Your task to perform on an android device: open app "VLC for Android" Image 0: 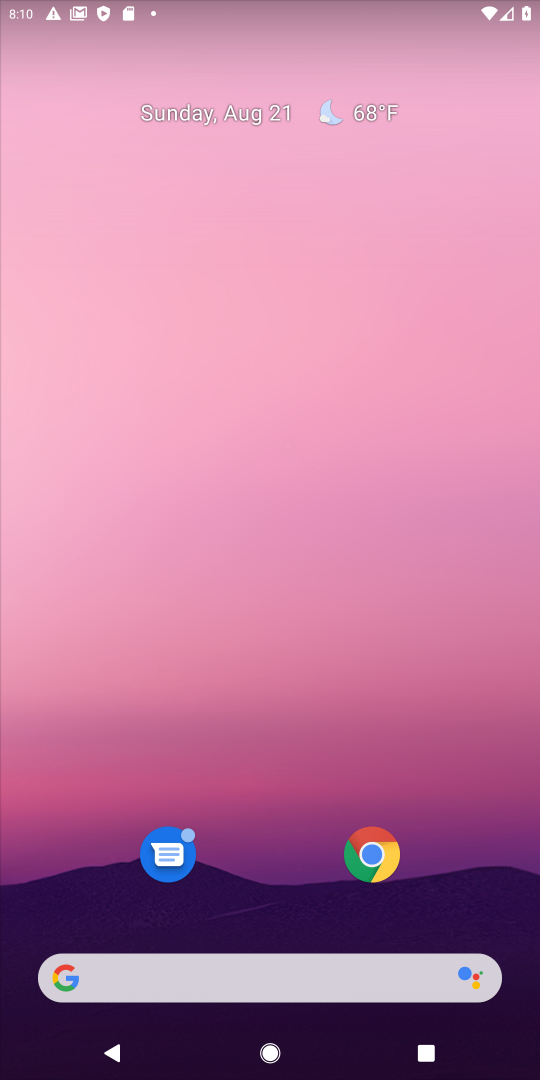
Step 0: drag from (248, 935) to (281, 107)
Your task to perform on an android device: open app "VLC for Android" Image 1: 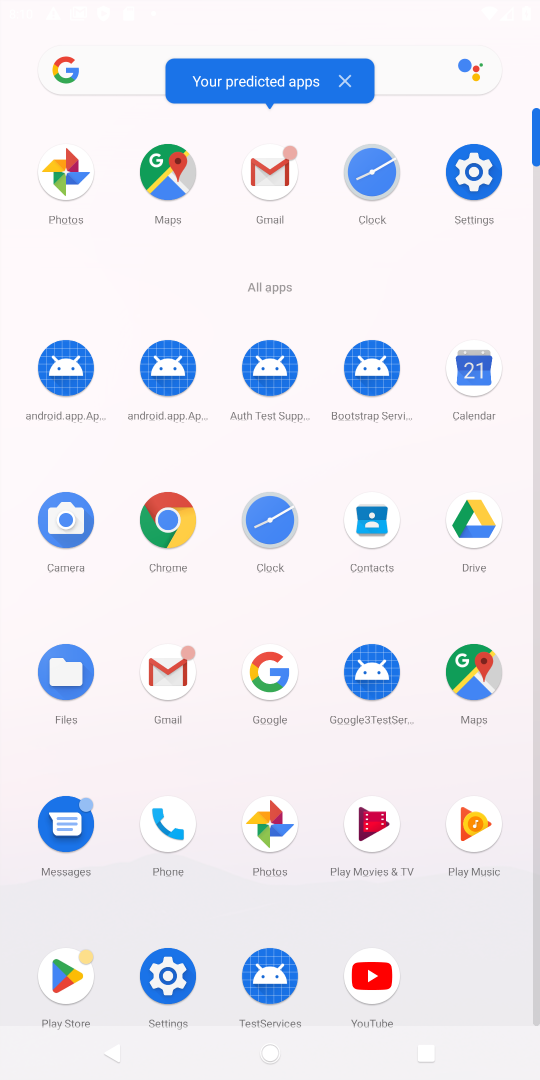
Step 1: click (73, 964)
Your task to perform on an android device: open app "VLC for Android" Image 2: 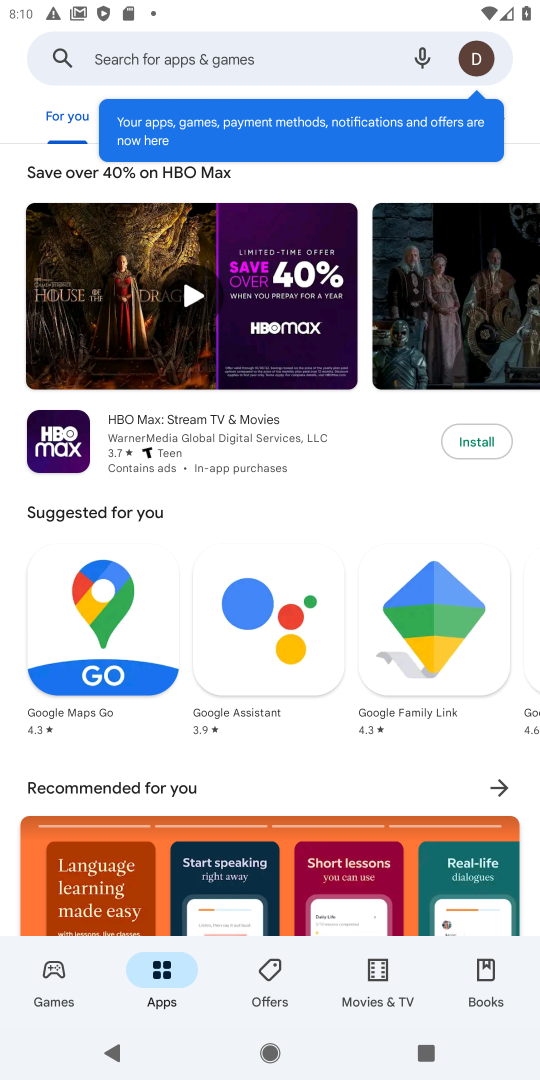
Step 2: click (254, 44)
Your task to perform on an android device: open app "VLC for Android" Image 3: 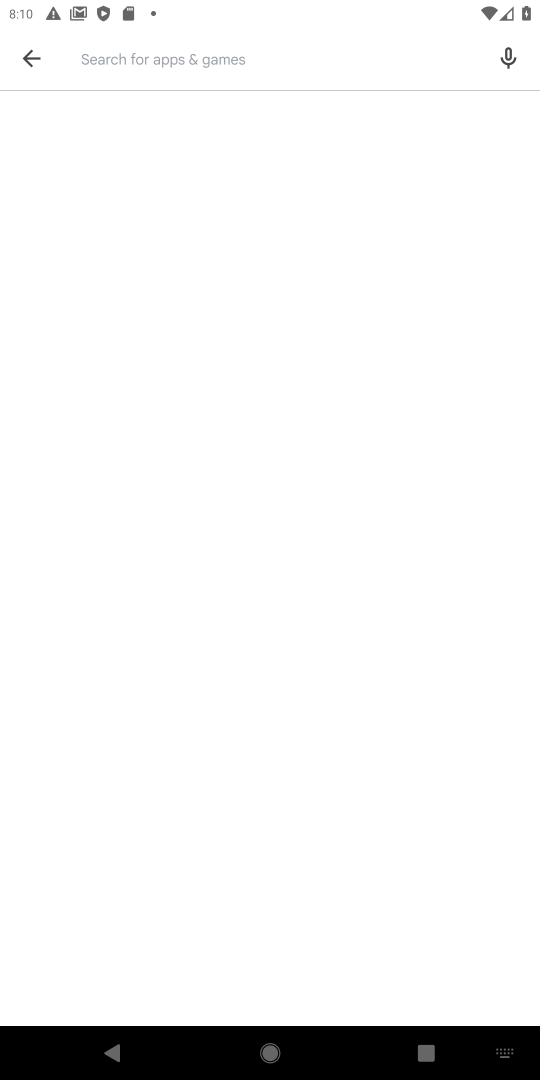
Step 3: type "vlc"
Your task to perform on an android device: open app "VLC for Android" Image 4: 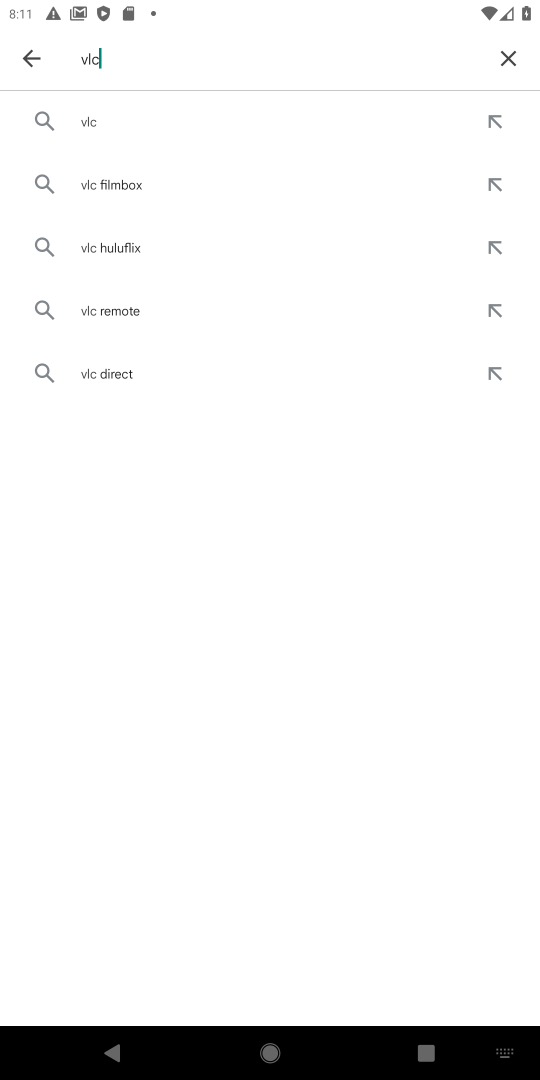
Step 4: click (112, 103)
Your task to perform on an android device: open app "VLC for Android" Image 5: 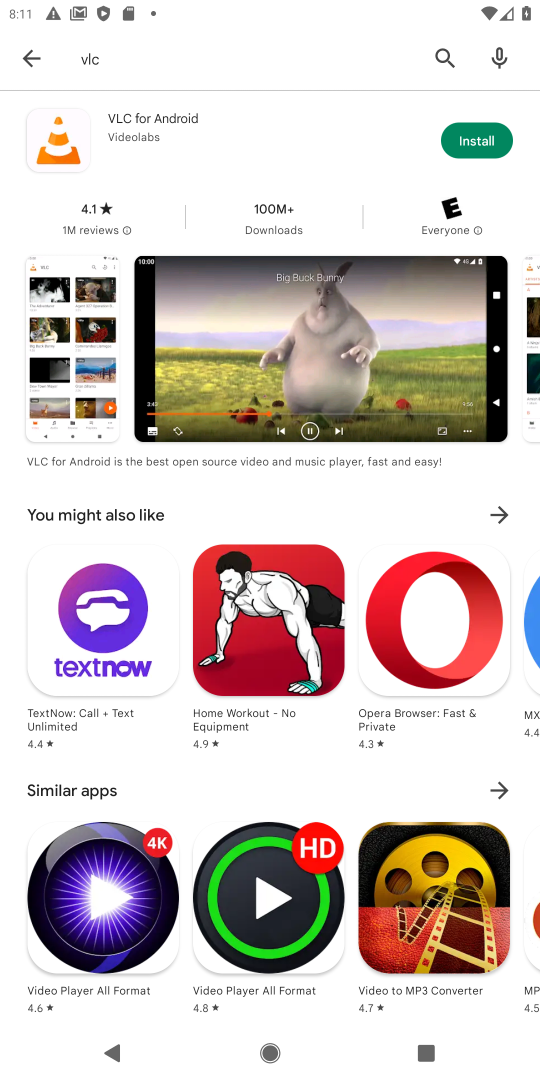
Step 5: click (489, 156)
Your task to perform on an android device: open app "VLC for Android" Image 6: 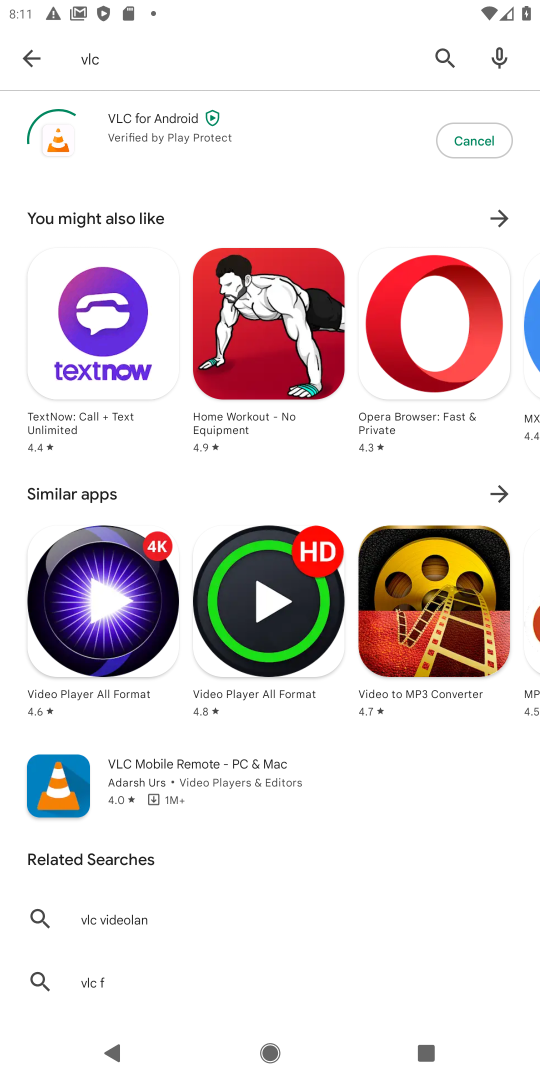
Step 6: task complete